Your task to perform on an android device: Search for "razer blade" on newegg.com, select the first entry, add it to the cart, then select checkout. Image 0: 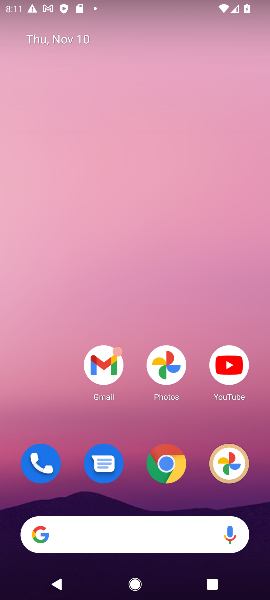
Step 0: click (165, 462)
Your task to perform on an android device: Search for "razer blade" on newegg.com, select the first entry, add it to the cart, then select checkout. Image 1: 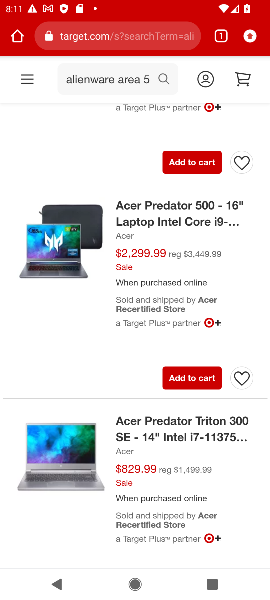
Step 1: click (129, 41)
Your task to perform on an android device: Search for "razer blade" on newegg.com, select the first entry, add it to the cart, then select checkout. Image 2: 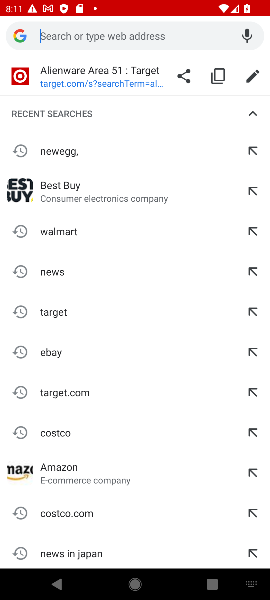
Step 2: click (56, 149)
Your task to perform on an android device: Search for "razer blade" on newegg.com, select the first entry, add it to the cart, then select checkout. Image 3: 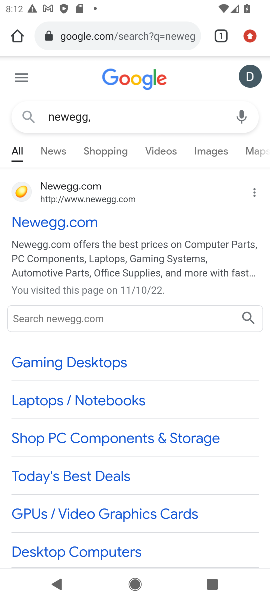
Step 3: click (50, 227)
Your task to perform on an android device: Search for "razer blade" on newegg.com, select the first entry, add it to the cart, then select checkout. Image 4: 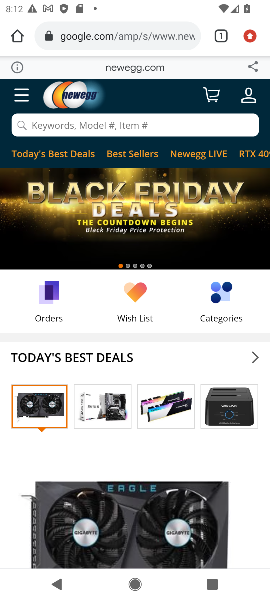
Step 4: click (166, 126)
Your task to perform on an android device: Search for "razer blade" on newegg.com, select the first entry, add it to the cart, then select checkout. Image 5: 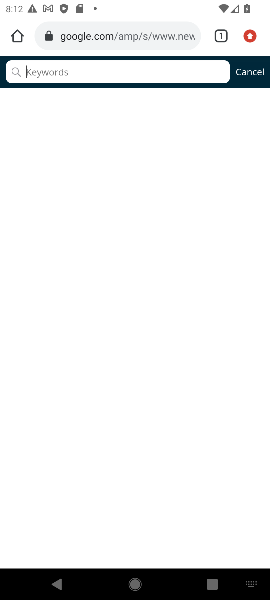
Step 5: type "razer blade"
Your task to perform on an android device: Search for "razer blade" on newegg.com, select the first entry, add it to the cart, then select checkout. Image 6: 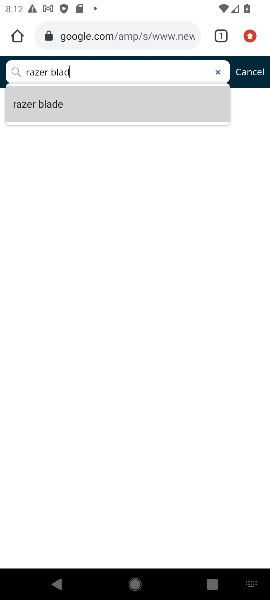
Step 6: press enter
Your task to perform on an android device: Search for "razer blade" on newegg.com, select the first entry, add it to the cart, then select checkout. Image 7: 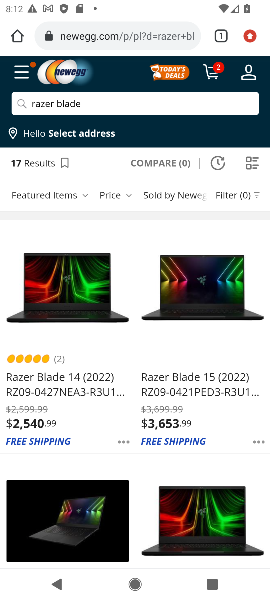
Step 7: click (65, 380)
Your task to perform on an android device: Search for "razer blade" on newegg.com, select the first entry, add it to the cart, then select checkout. Image 8: 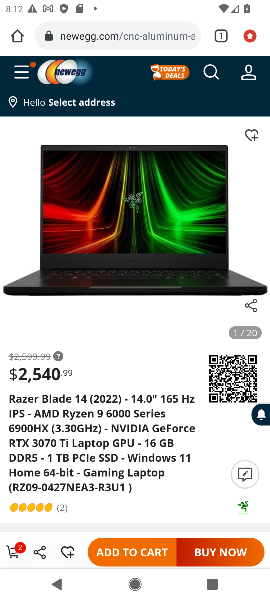
Step 8: click (125, 550)
Your task to perform on an android device: Search for "razer blade" on newegg.com, select the first entry, add it to the cart, then select checkout. Image 9: 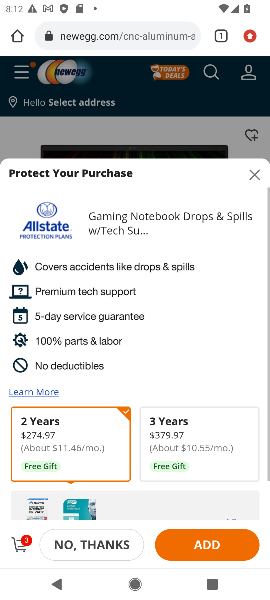
Step 9: click (22, 538)
Your task to perform on an android device: Search for "razer blade" on newegg.com, select the first entry, add it to the cart, then select checkout. Image 10: 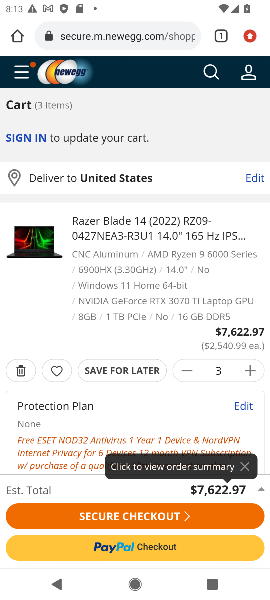
Step 10: click (147, 519)
Your task to perform on an android device: Search for "razer blade" on newegg.com, select the first entry, add it to the cart, then select checkout. Image 11: 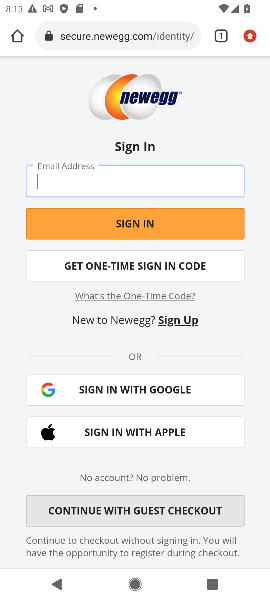
Step 11: task complete